Your task to perform on an android device: What's the weather going to be tomorrow? Image 0: 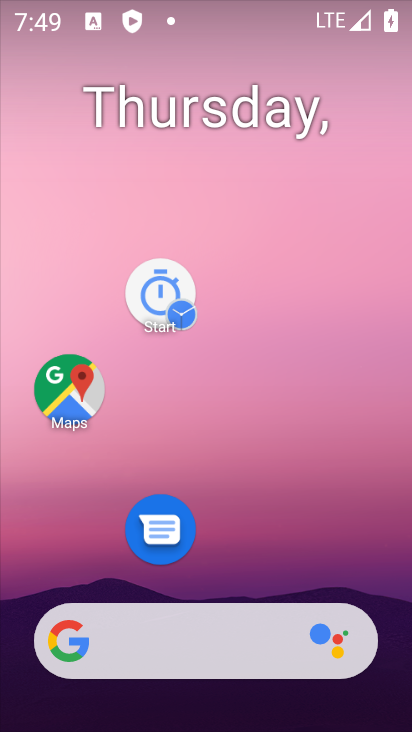
Step 0: drag from (307, 511) to (221, 170)
Your task to perform on an android device: What's the weather going to be tomorrow? Image 1: 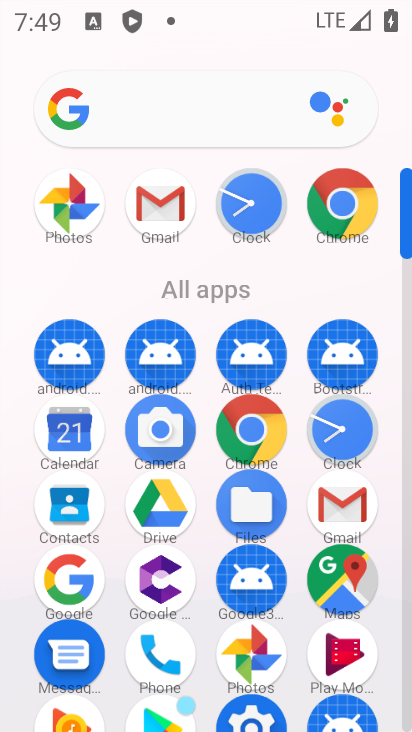
Step 1: click (61, 569)
Your task to perform on an android device: What's the weather going to be tomorrow? Image 2: 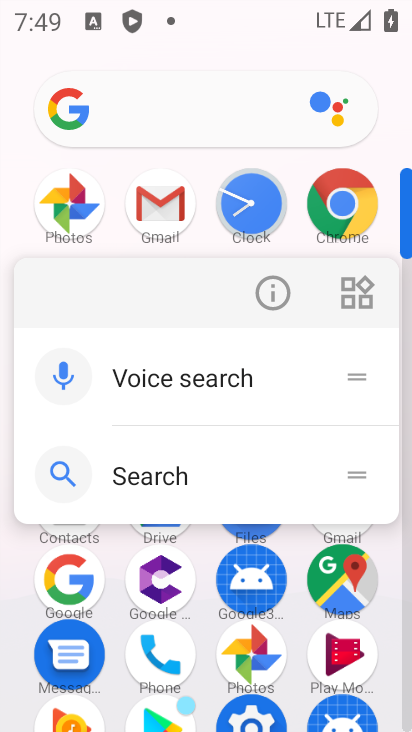
Step 2: click (79, 581)
Your task to perform on an android device: What's the weather going to be tomorrow? Image 3: 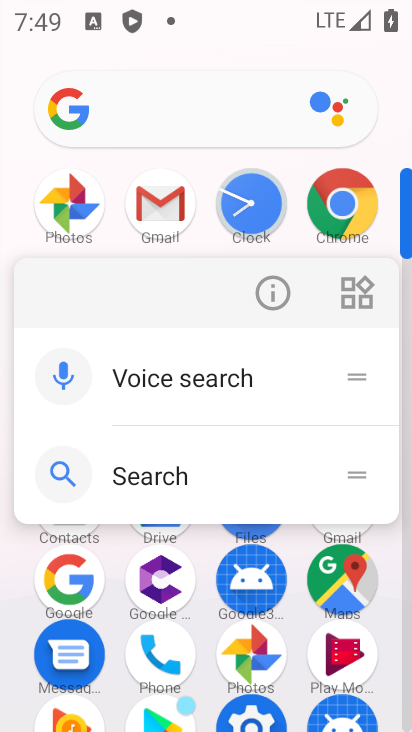
Step 3: click (53, 610)
Your task to perform on an android device: What's the weather going to be tomorrow? Image 4: 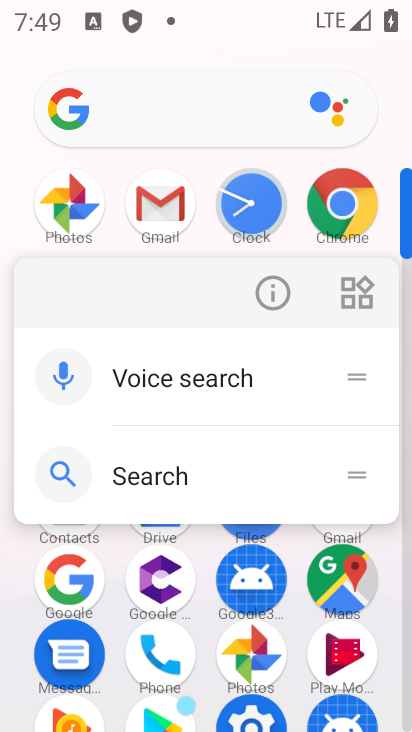
Step 4: click (59, 594)
Your task to perform on an android device: What's the weather going to be tomorrow? Image 5: 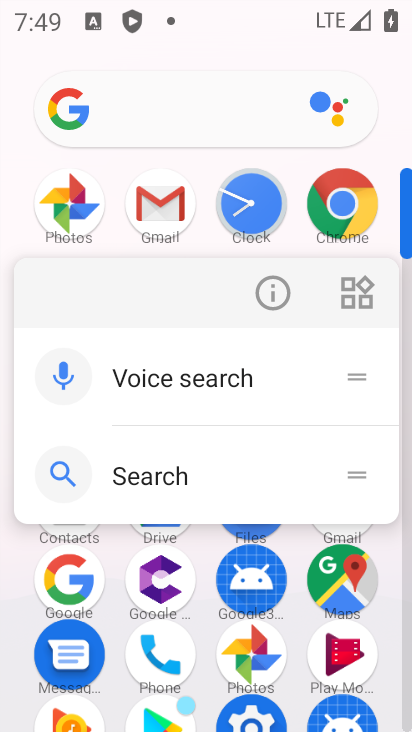
Step 5: click (62, 583)
Your task to perform on an android device: What's the weather going to be tomorrow? Image 6: 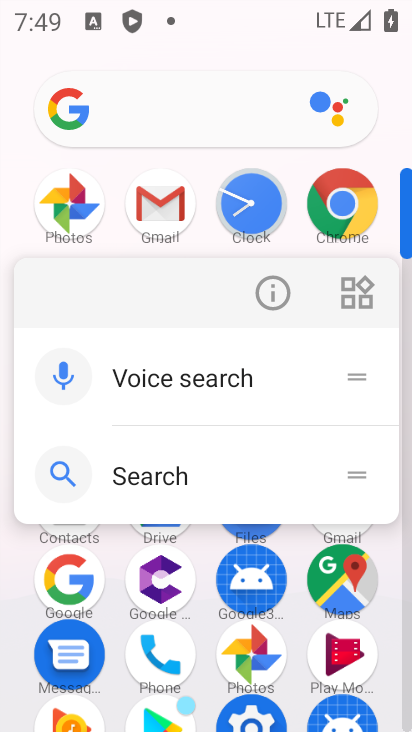
Step 6: click (65, 565)
Your task to perform on an android device: What's the weather going to be tomorrow? Image 7: 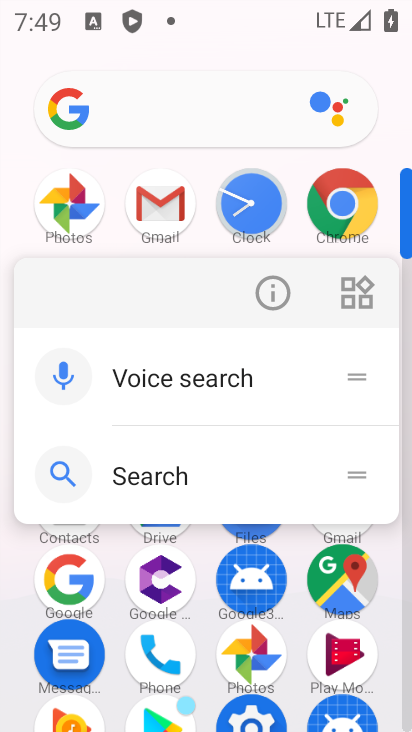
Step 7: click (78, 583)
Your task to perform on an android device: What's the weather going to be tomorrow? Image 8: 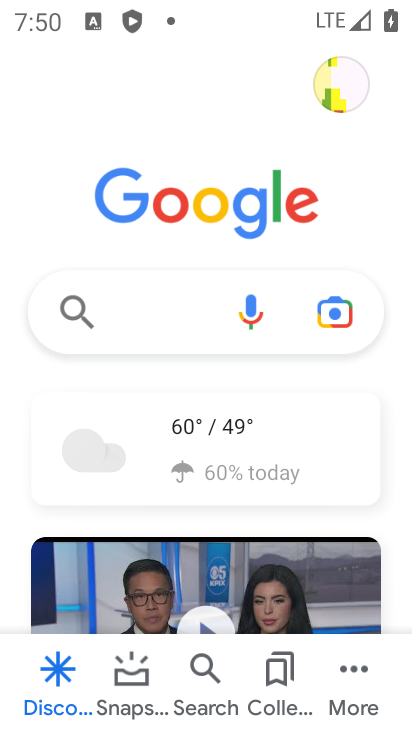
Step 8: click (280, 470)
Your task to perform on an android device: What's the weather going to be tomorrow? Image 9: 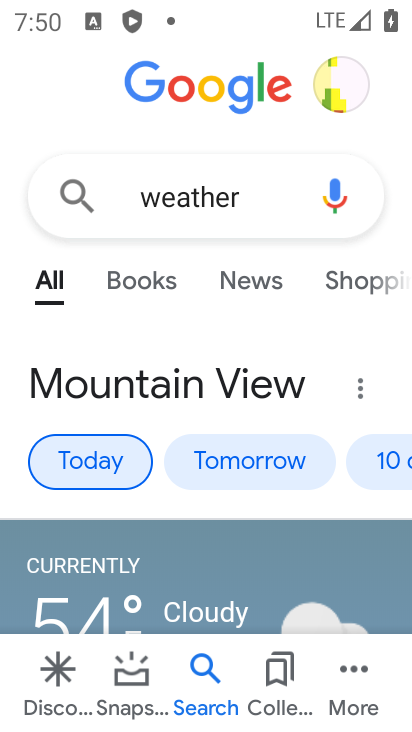
Step 9: click (258, 460)
Your task to perform on an android device: What's the weather going to be tomorrow? Image 10: 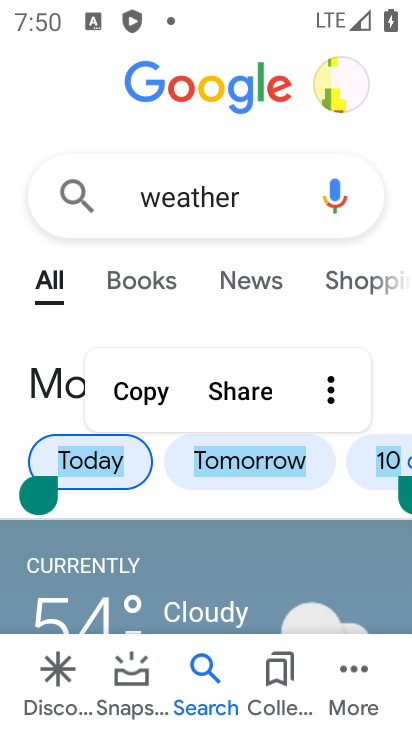
Step 10: click (267, 457)
Your task to perform on an android device: What's the weather going to be tomorrow? Image 11: 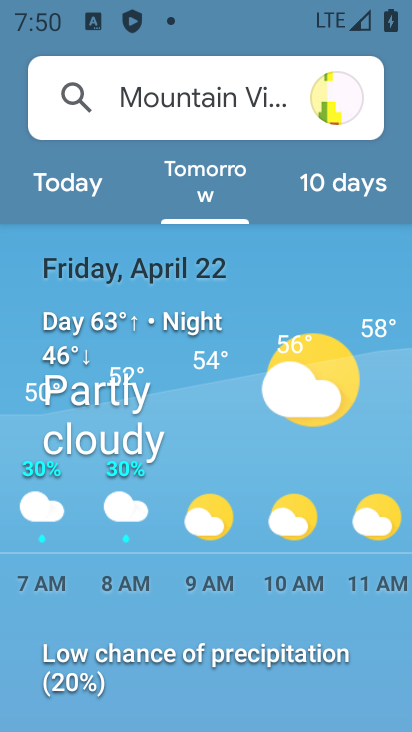
Step 11: task complete